Your task to perform on an android device: Open wifi settings Image 0: 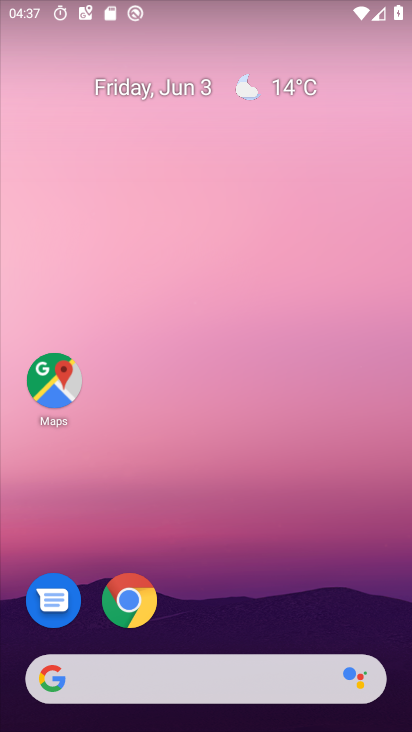
Step 0: drag from (251, 579) to (170, 98)
Your task to perform on an android device: Open wifi settings Image 1: 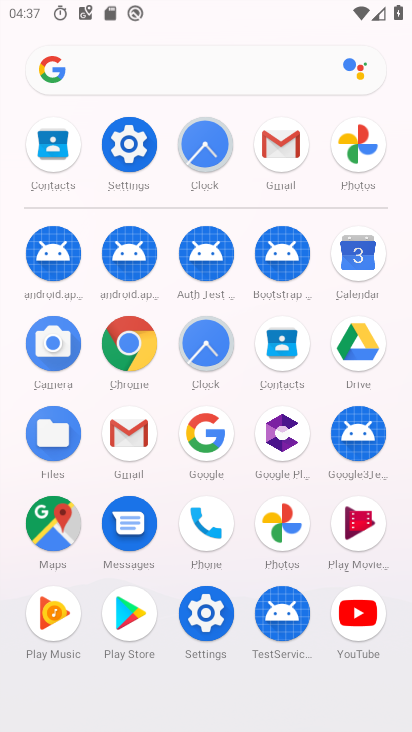
Step 1: click (136, 146)
Your task to perform on an android device: Open wifi settings Image 2: 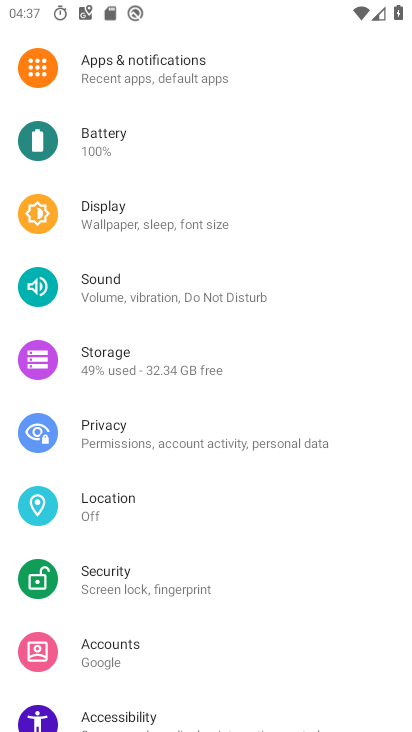
Step 2: drag from (175, 150) to (189, 695)
Your task to perform on an android device: Open wifi settings Image 3: 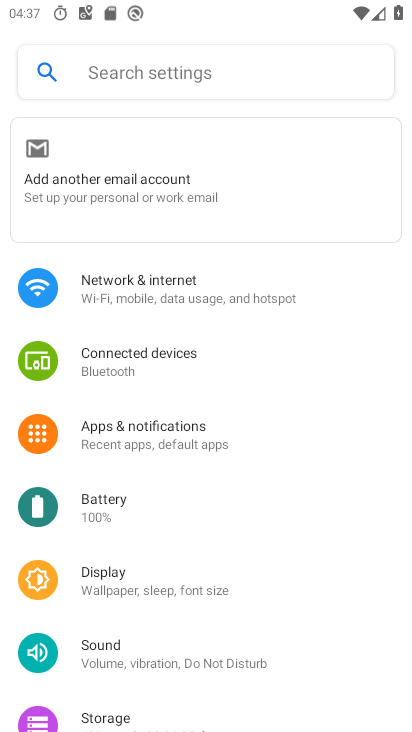
Step 3: click (153, 282)
Your task to perform on an android device: Open wifi settings Image 4: 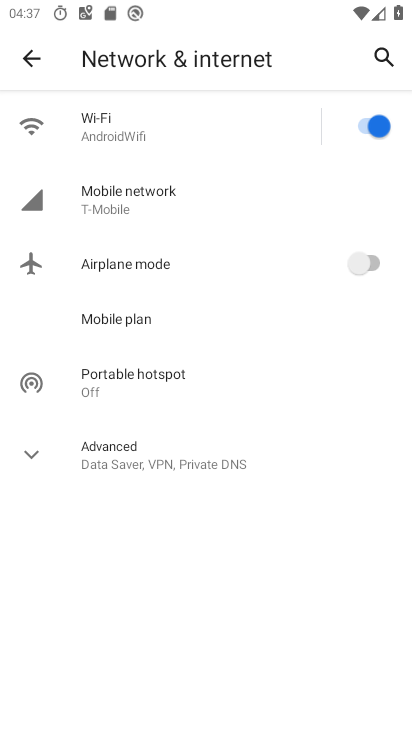
Step 4: click (139, 122)
Your task to perform on an android device: Open wifi settings Image 5: 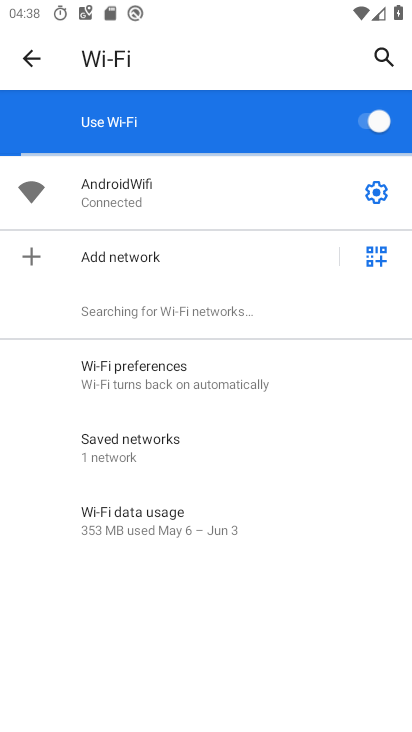
Step 5: click (374, 196)
Your task to perform on an android device: Open wifi settings Image 6: 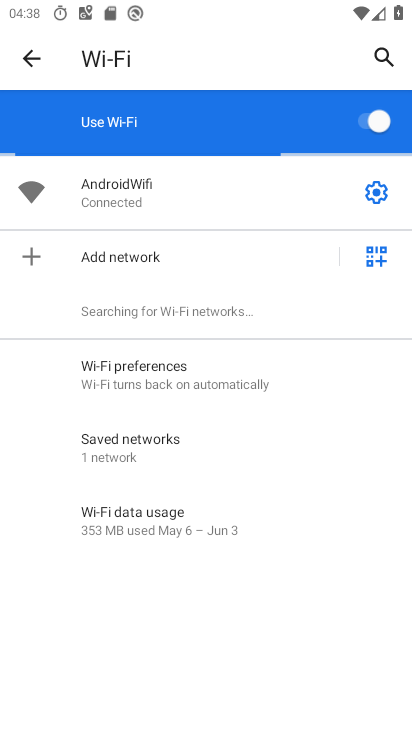
Step 6: click (375, 194)
Your task to perform on an android device: Open wifi settings Image 7: 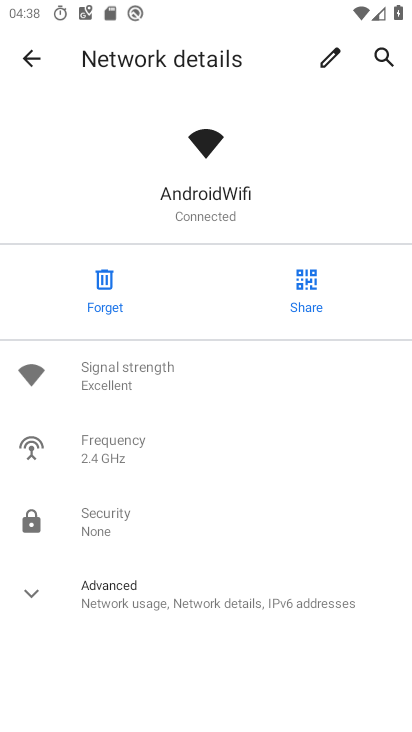
Step 7: task complete